Your task to perform on an android device: turn off picture-in-picture Image 0: 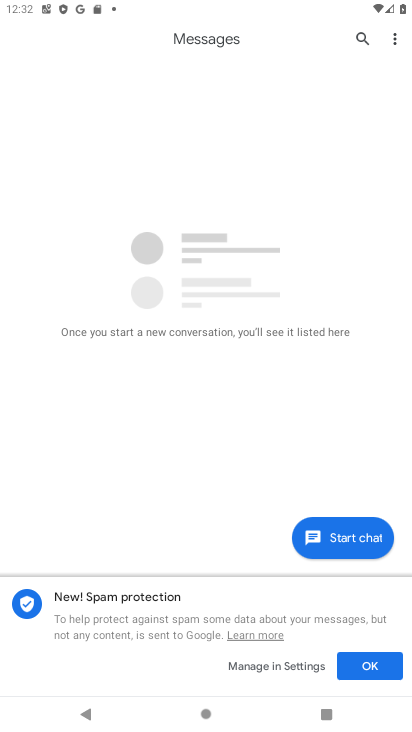
Step 0: press home button
Your task to perform on an android device: turn off picture-in-picture Image 1: 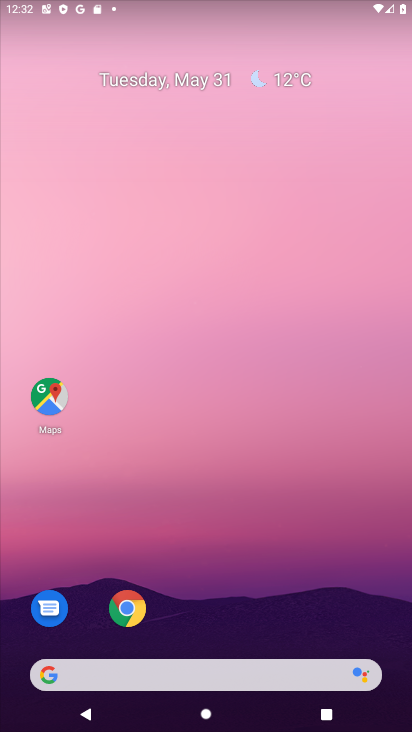
Step 1: click (125, 611)
Your task to perform on an android device: turn off picture-in-picture Image 2: 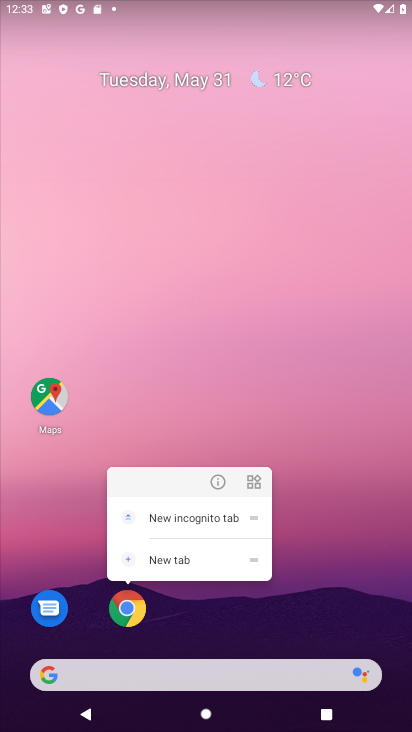
Step 2: click (215, 481)
Your task to perform on an android device: turn off picture-in-picture Image 3: 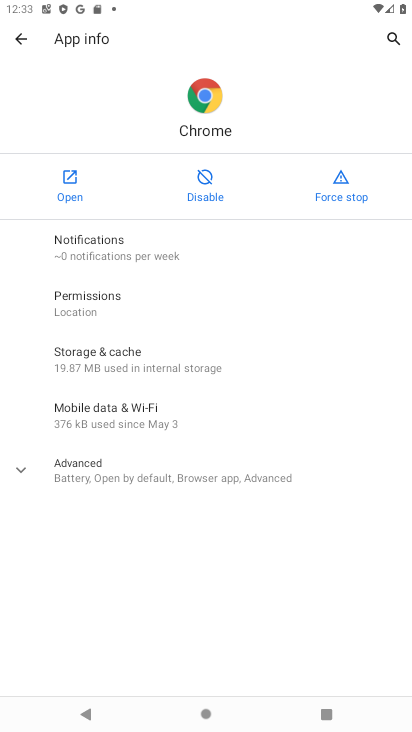
Step 3: click (57, 472)
Your task to perform on an android device: turn off picture-in-picture Image 4: 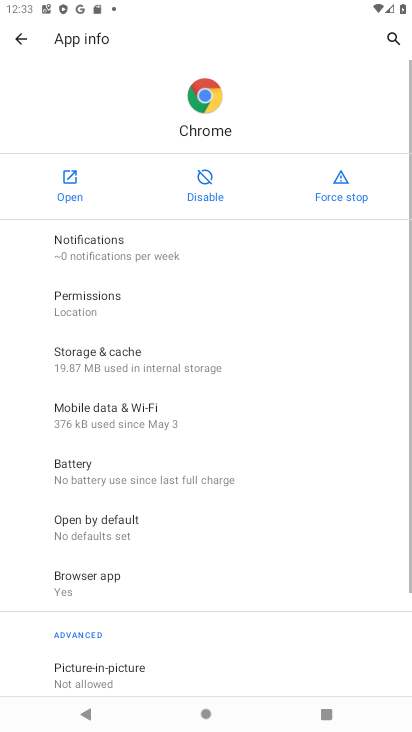
Step 4: click (136, 672)
Your task to perform on an android device: turn off picture-in-picture Image 5: 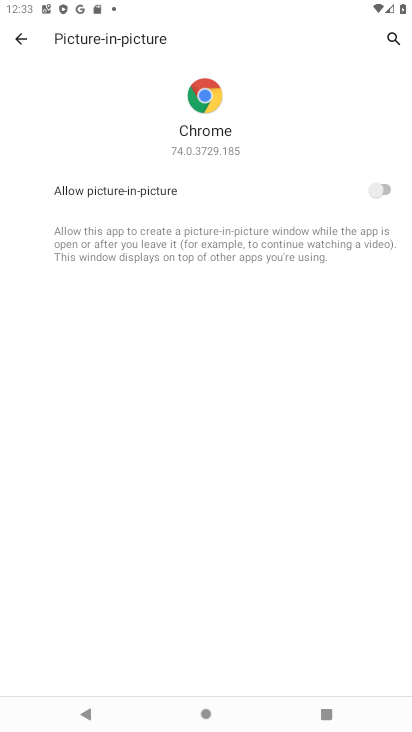
Step 5: task complete